Your task to perform on an android device: Open Google Maps Image 0: 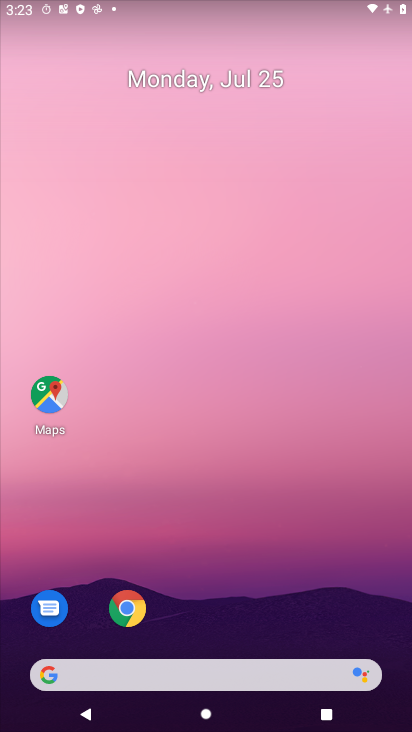
Step 0: drag from (210, 607) to (253, 127)
Your task to perform on an android device: Open Google Maps Image 1: 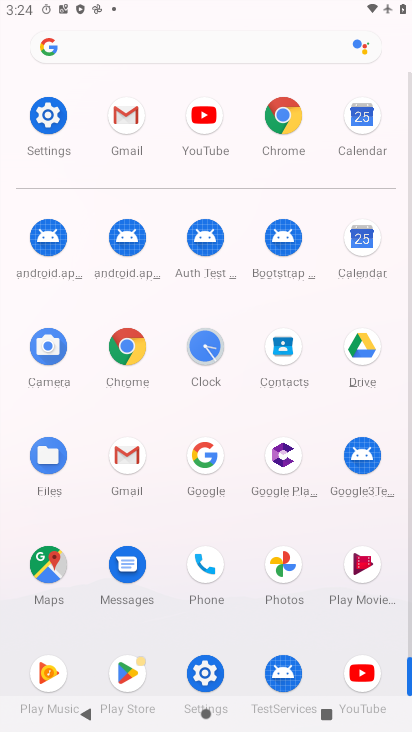
Step 1: click (53, 585)
Your task to perform on an android device: Open Google Maps Image 2: 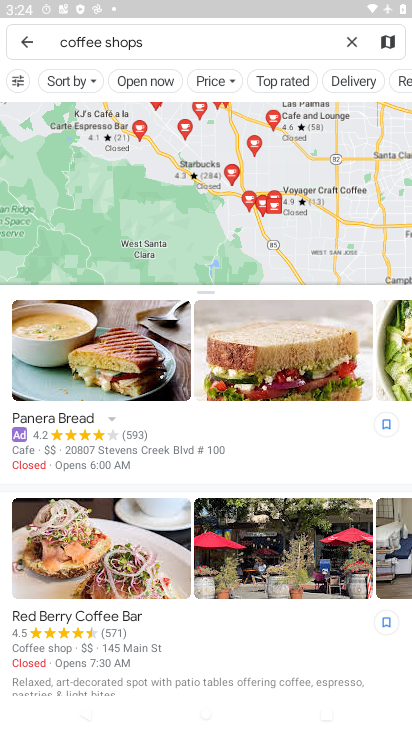
Step 2: task complete